Your task to perform on an android device: turn off priority inbox in the gmail app Image 0: 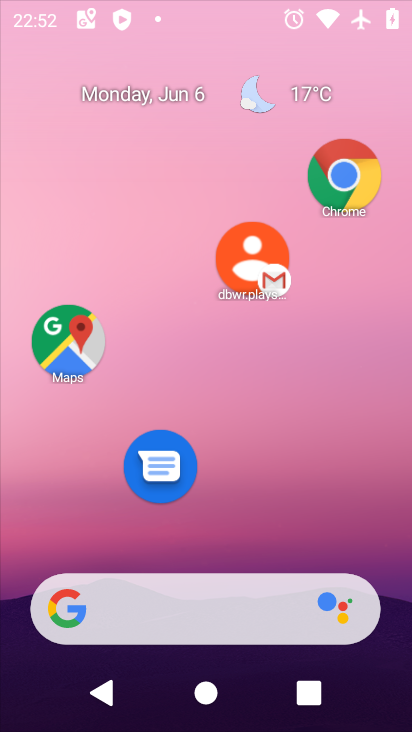
Step 0: click (262, 169)
Your task to perform on an android device: turn off priority inbox in the gmail app Image 1: 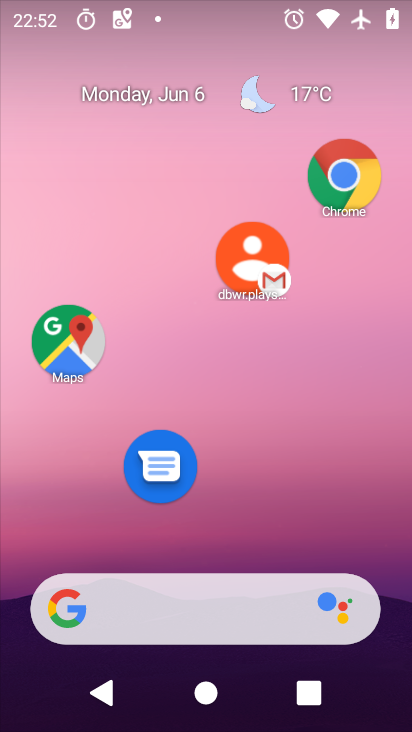
Step 1: drag from (248, 501) to (244, 43)
Your task to perform on an android device: turn off priority inbox in the gmail app Image 2: 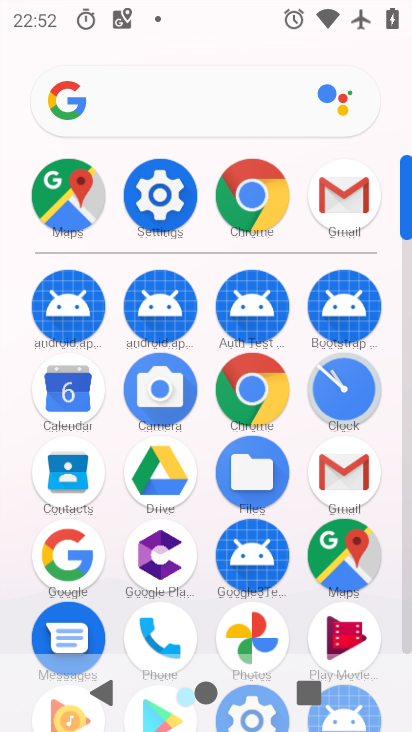
Step 2: click (344, 470)
Your task to perform on an android device: turn off priority inbox in the gmail app Image 3: 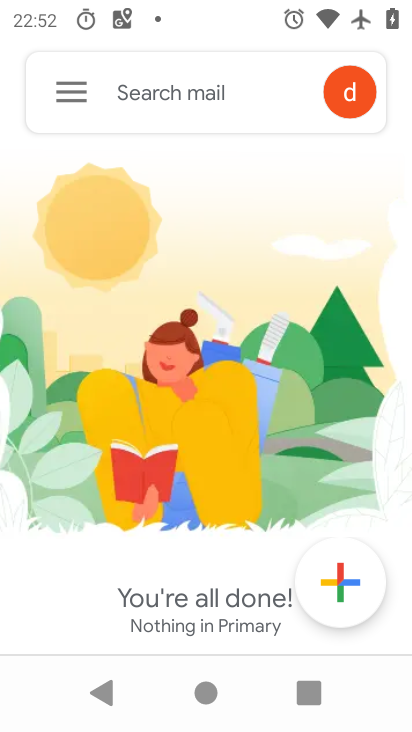
Step 3: click (77, 81)
Your task to perform on an android device: turn off priority inbox in the gmail app Image 4: 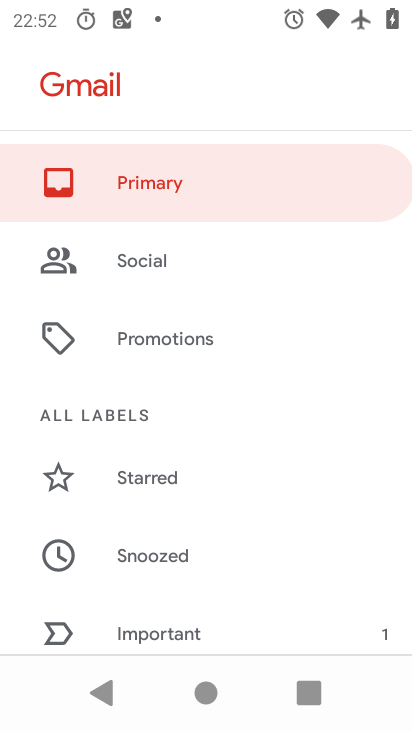
Step 4: drag from (231, 541) to (244, 101)
Your task to perform on an android device: turn off priority inbox in the gmail app Image 5: 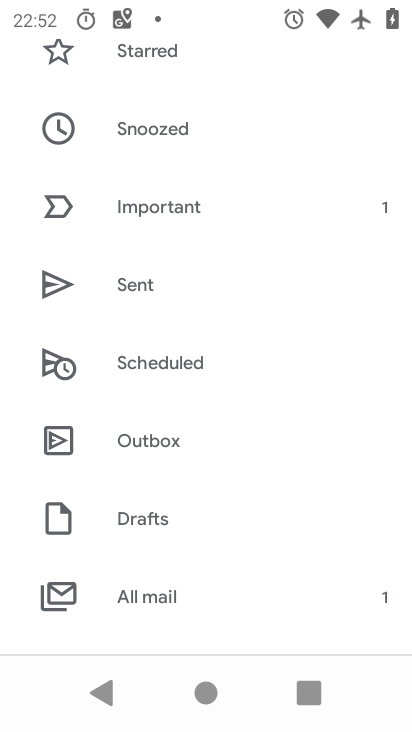
Step 5: drag from (182, 545) to (181, 91)
Your task to perform on an android device: turn off priority inbox in the gmail app Image 6: 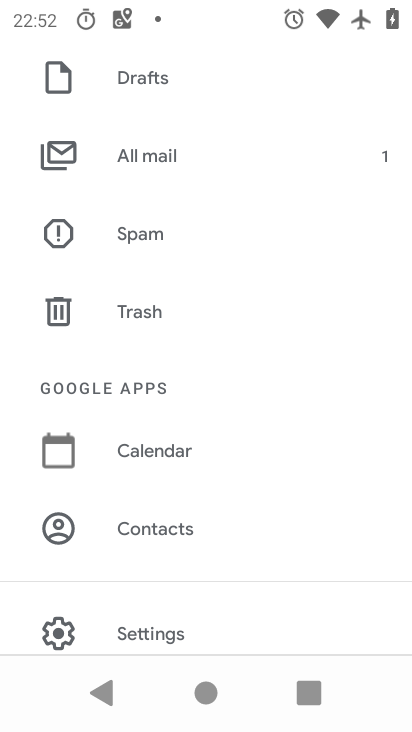
Step 6: click (214, 626)
Your task to perform on an android device: turn off priority inbox in the gmail app Image 7: 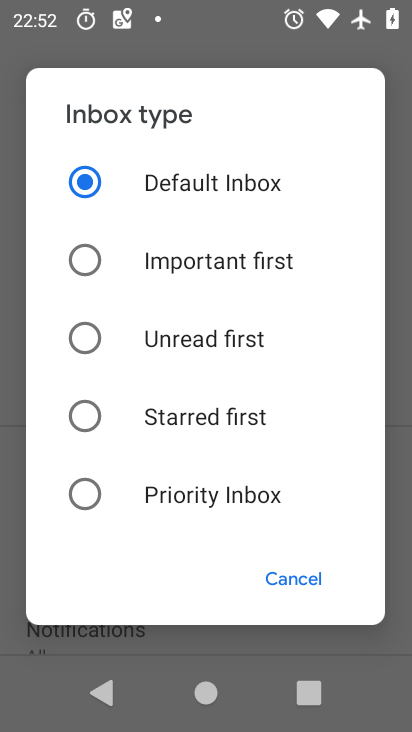
Step 7: task complete